Your task to perform on an android device: Go to internet settings Image 0: 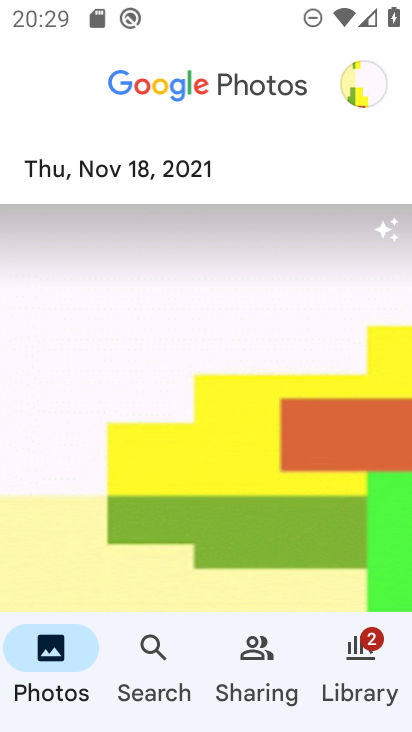
Step 0: press home button
Your task to perform on an android device: Go to internet settings Image 1: 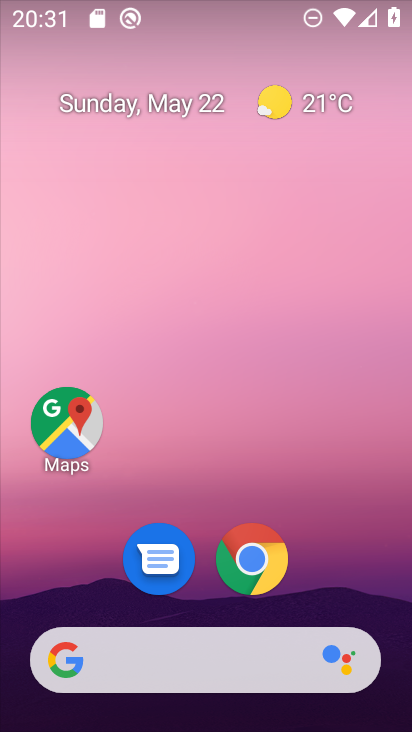
Step 1: drag from (272, 709) to (208, 311)
Your task to perform on an android device: Go to internet settings Image 2: 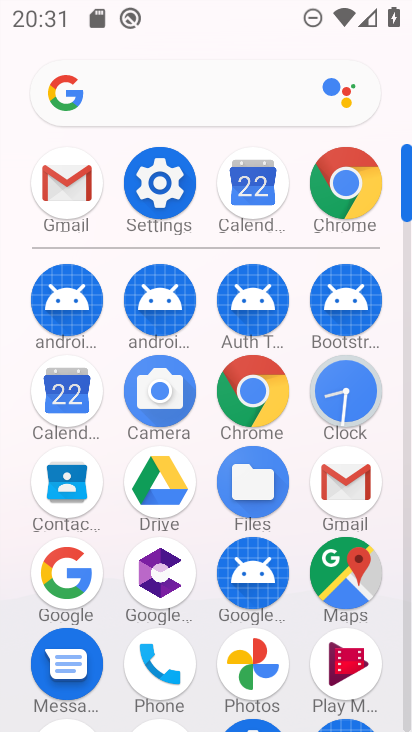
Step 2: click (170, 181)
Your task to perform on an android device: Go to internet settings Image 3: 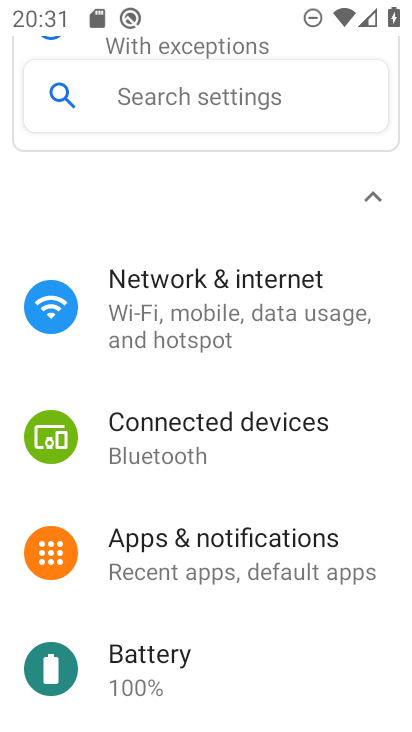
Step 3: click (229, 307)
Your task to perform on an android device: Go to internet settings Image 4: 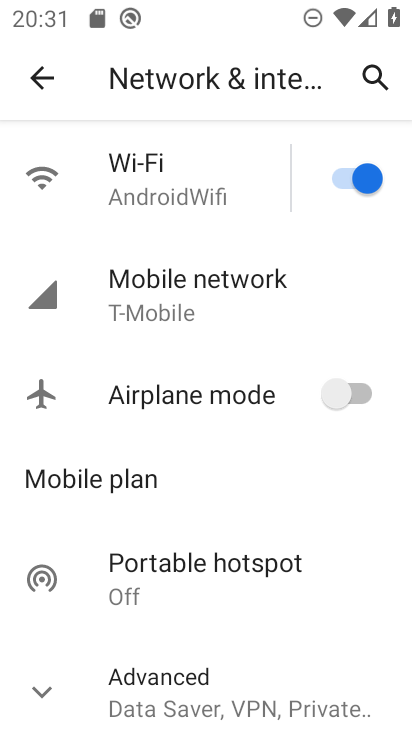
Step 4: task complete